Your task to perform on an android device: visit the assistant section in the google photos Image 0: 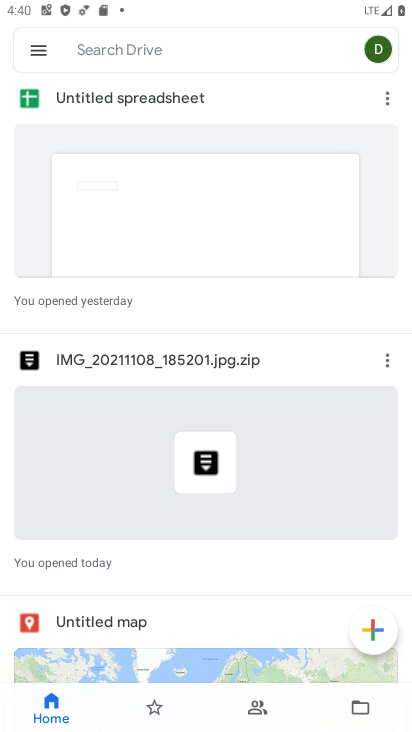
Step 0: press home button
Your task to perform on an android device: visit the assistant section in the google photos Image 1: 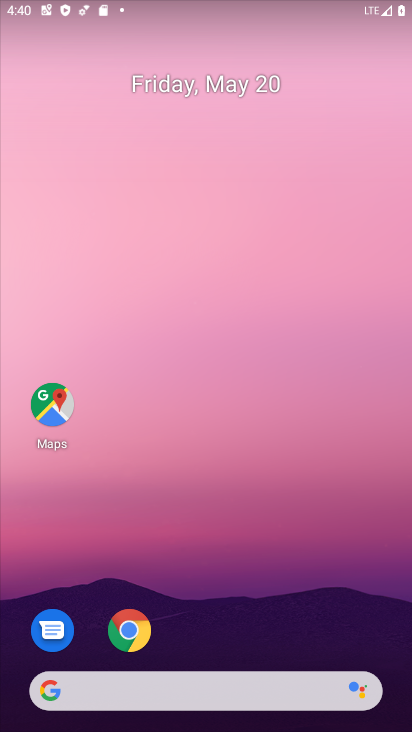
Step 1: drag from (223, 539) to (265, 4)
Your task to perform on an android device: visit the assistant section in the google photos Image 2: 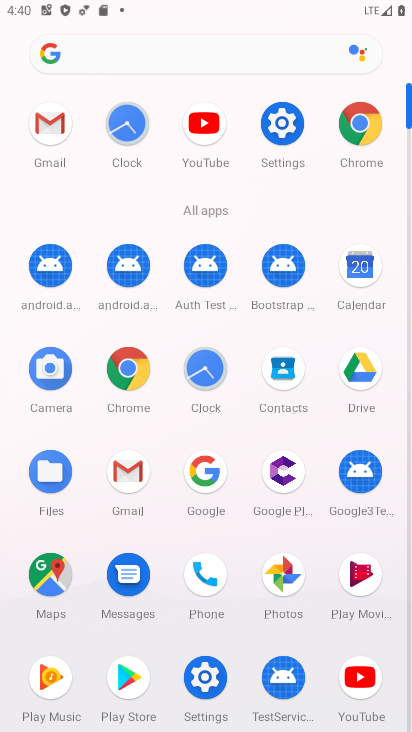
Step 2: click (288, 566)
Your task to perform on an android device: visit the assistant section in the google photos Image 3: 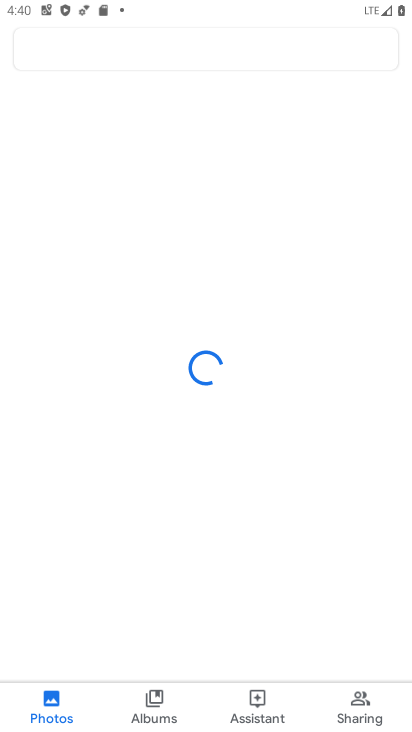
Step 3: click (255, 696)
Your task to perform on an android device: visit the assistant section in the google photos Image 4: 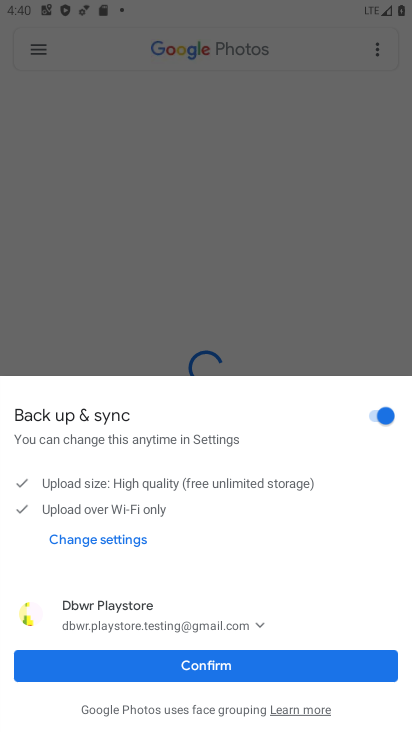
Step 4: click (269, 667)
Your task to perform on an android device: visit the assistant section in the google photos Image 5: 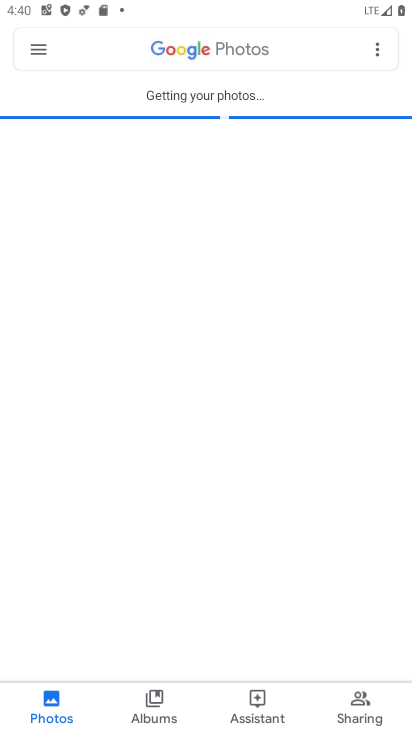
Step 5: click (264, 709)
Your task to perform on an android device: visit the assistant section in the google photos Image 6: 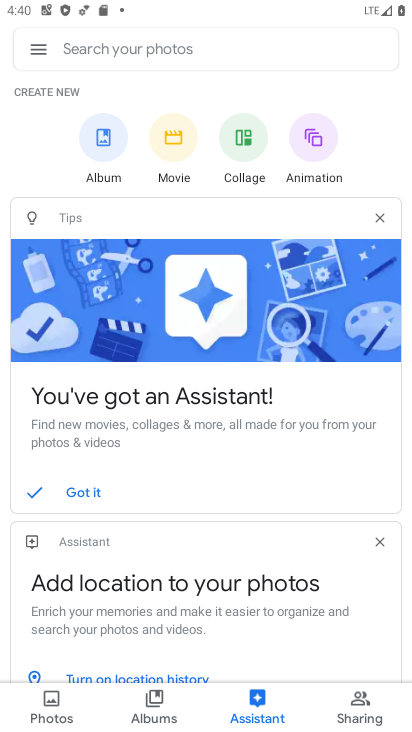
Step 6: task complete